Your task to perform on an android device: check data usage Image 0: 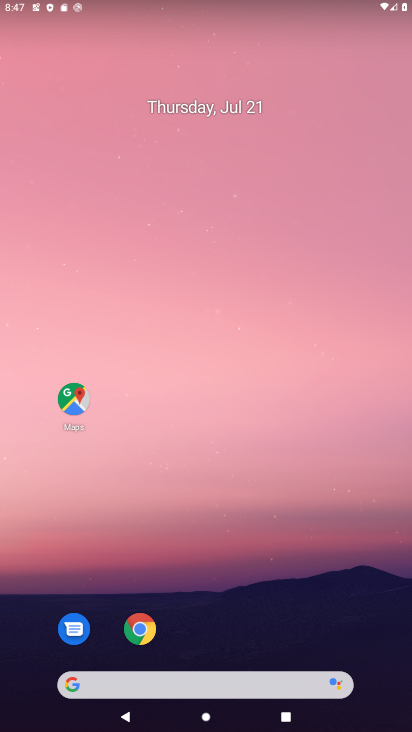
Step 0: drag from (258, 640) to (238, 351)
Your task to perform on an android device: check data usage Image 1: 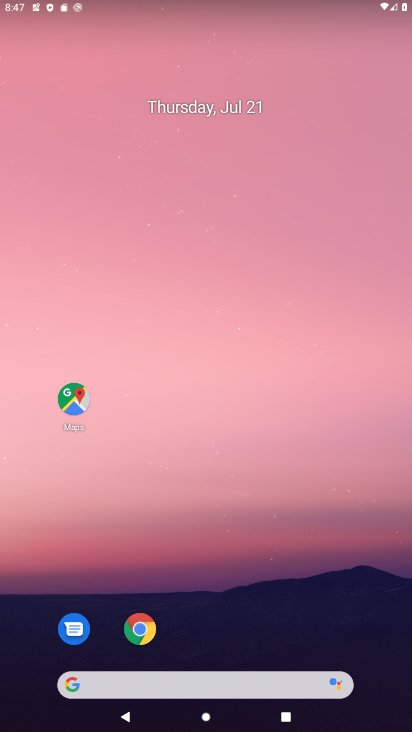
Step 1: drag from (212, 9) to (217, 728)
Your task to perform on an android device: check data usage Image 2: 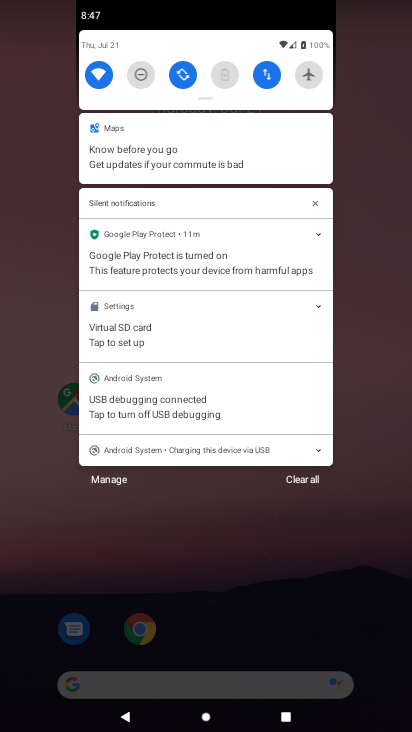
Step 2: click (273, 79)
Your task to perform on an android device: check data usage Image 3: 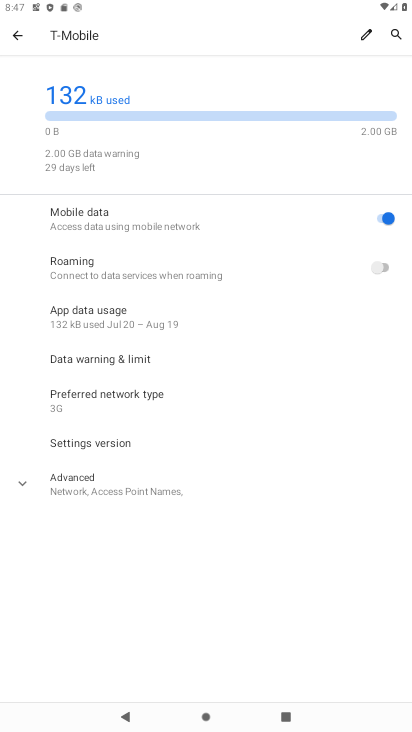
Step 3: task complete